Your task to perform on an android device: Open Google Chrome and click the shortcut for Amazon.com Image 0: 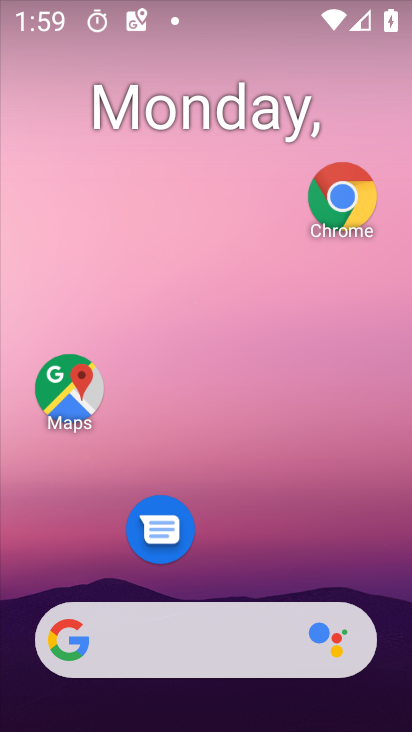
Step 0: drag from (207, 609) to (283, 17)
Your task to perform on an android device: Open Google Chrome and click the shortcut for Amazon.com Image 1: 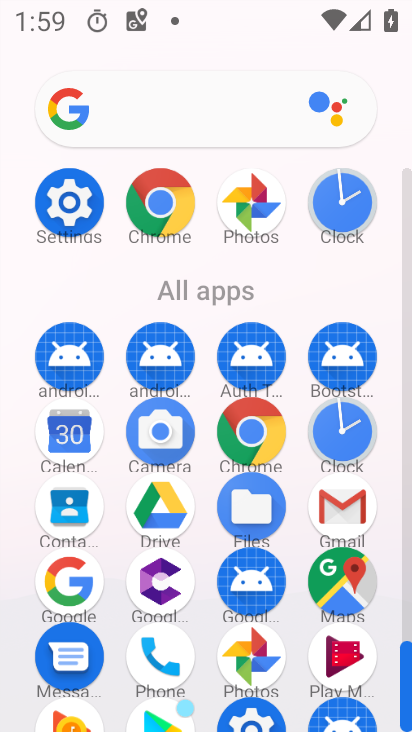
Step 1: click (149, 208)
Your task to perform on an android device: Open Google Chrome and click the shortcut for Amazon.com Image 2: 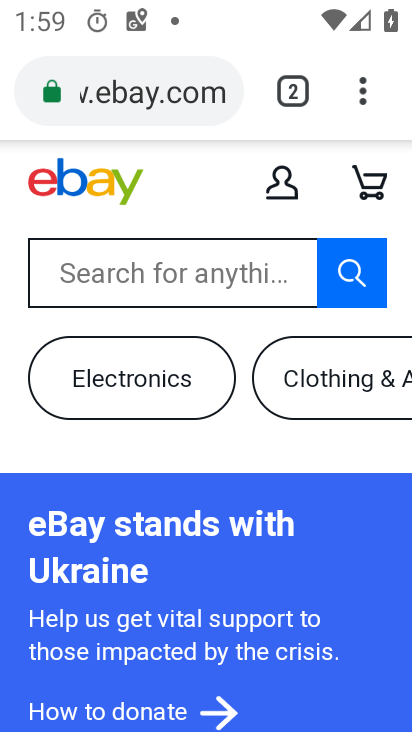
Step 2: click (275, 96)
Your task to perform on an android device: Open Google Chrome and click the shortcut for Amazon.com Image 3: 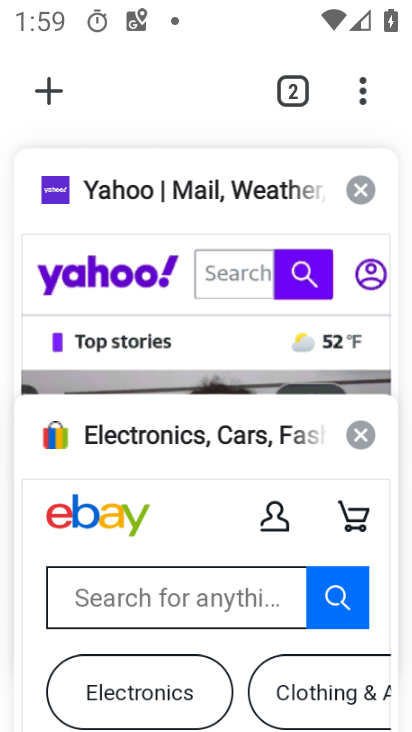
Step 3: click (36, 89)
Your task to perform on an android device: Open Google Chrome and click the shortcut for Amazon.com Image 4: 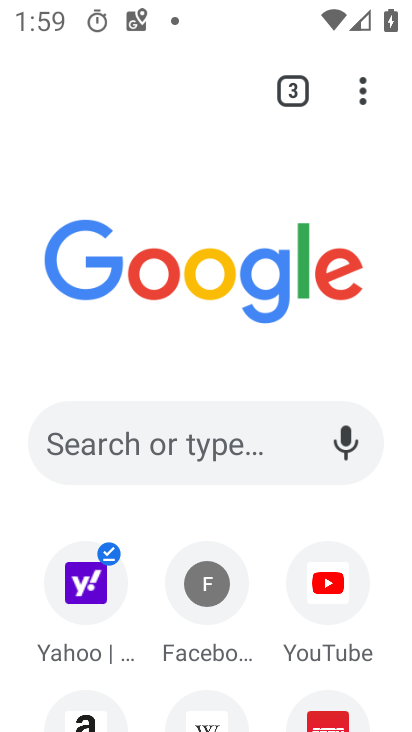
Step 4: click (88, 703)
Your task to perform on an android device: Open Google Chrome and click the shortcut for Amazon.com Image 5: 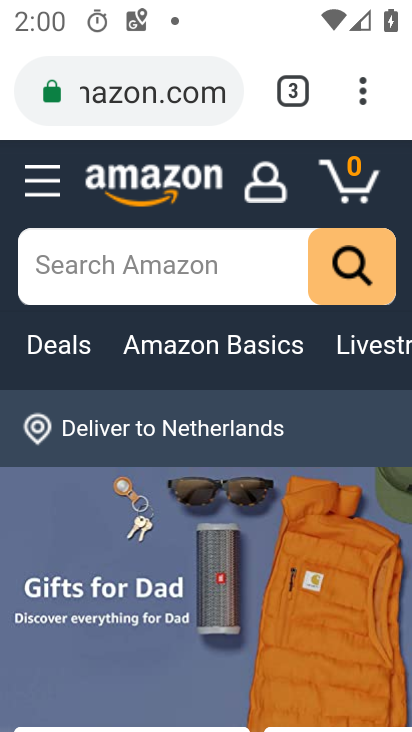
Step 5: task complete